Your task to perform on an android device: toggle pop-ups in chrome Image 0: 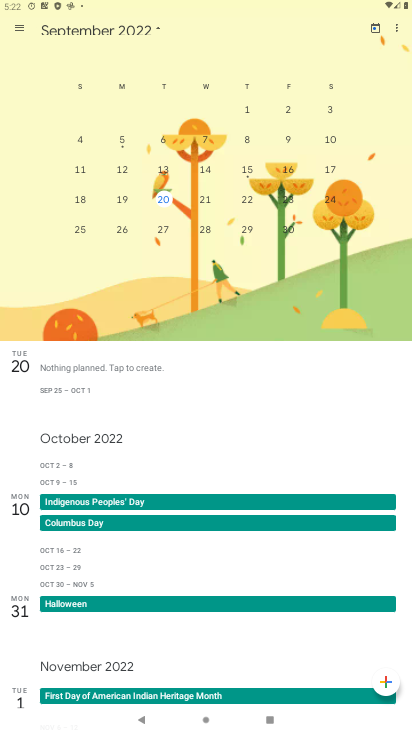
Step 0: press home button
Your task to perform on an android device: toggle pop-ups in chrome Image 1: 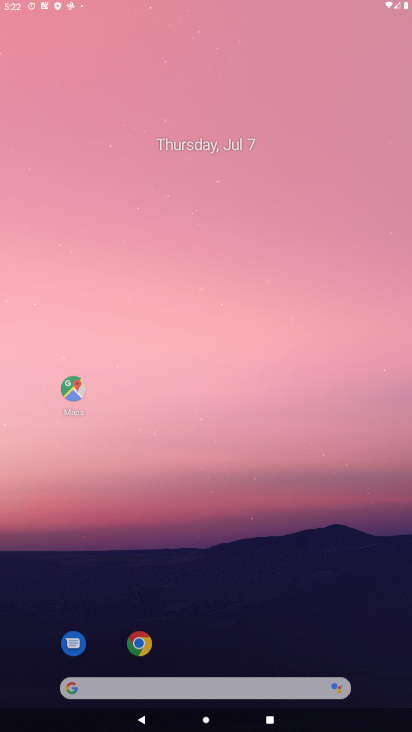
Step 1: drag from (364, 678) to (260, 119)
Your task to perform on an android device: toggle pop-ups in chrome Image 2: 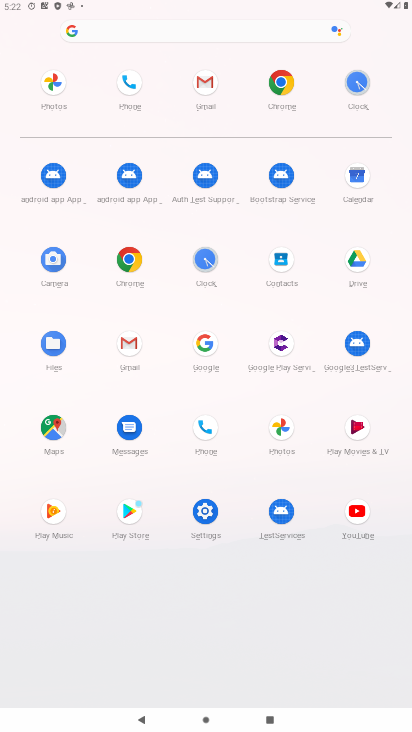
Step 2: click (274, 81)
Your task to perform on an android device: toggle pop-ups in chrome Image 3: 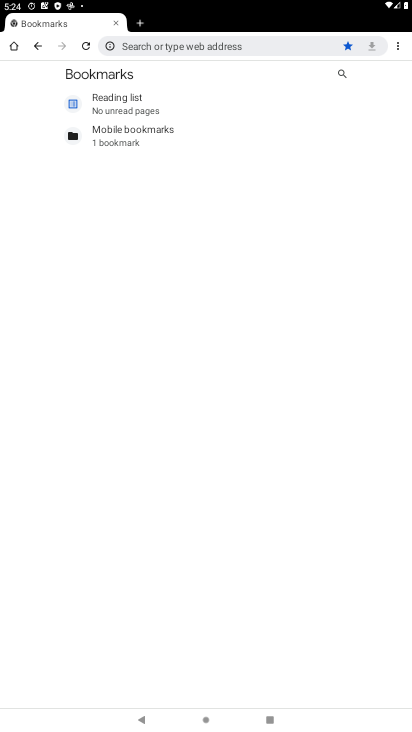
Step 3: click (393, 44)
Your task to perform on an android device: toggle pop-ups in chrome Image 4: 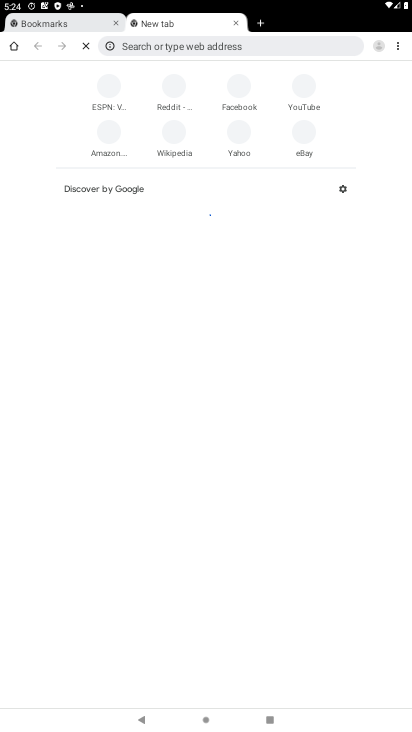
Step 4: click (398, 49)
Your task to perform on an android device: toggle pop-ups in chrome Image 5: 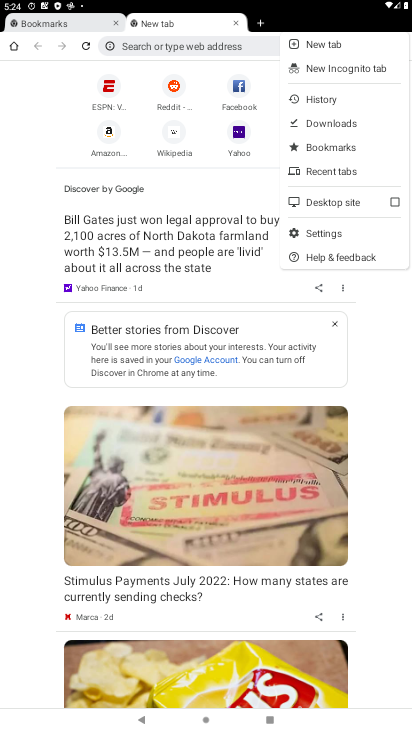
Step 5: click (328, 237)
Your task to perform on an android device: toggle pop-ups in chrome Image 6: 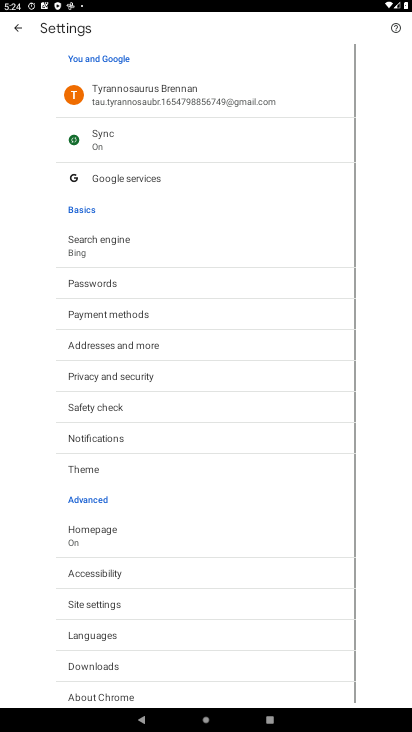
Step 6: click (122, 601)
Your task to perform on an android device: toggle pop-ups in chrome Image 7: 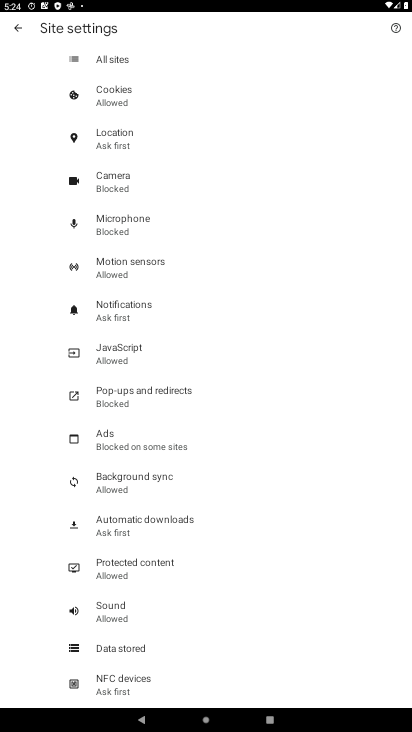
Step 7: click (126, 402)
Your task to perform on an android device: toggle pop-ups in chrome Image 8: 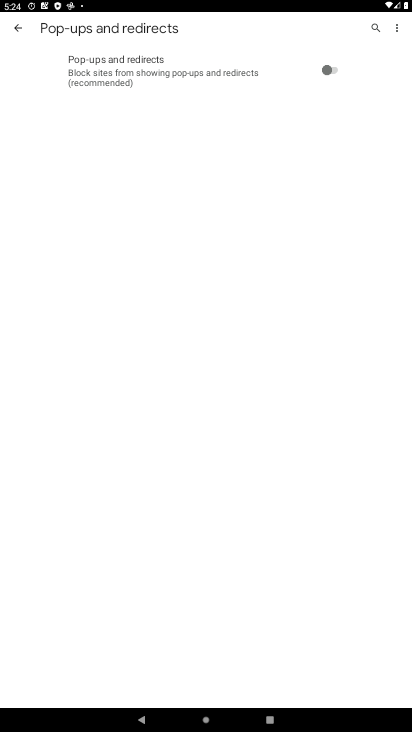
Step 8: click (358, 69)
Your task to perform on an android device: toggle pop-ups in chrome Image 9: 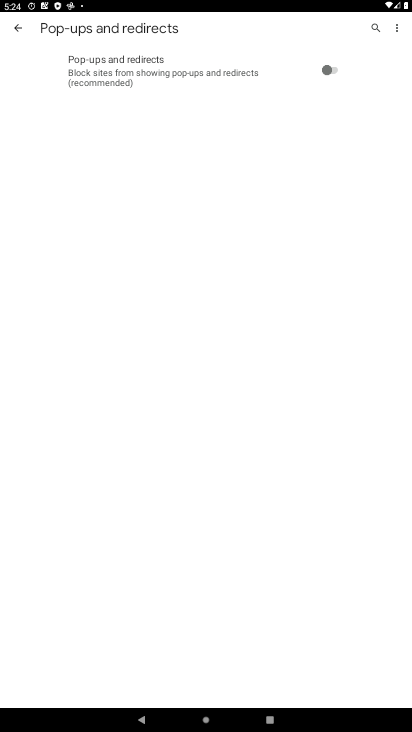
Step 9: click (316, 64)
Your task to perform on an android device: toggle pop-ups in chrome Image 10: 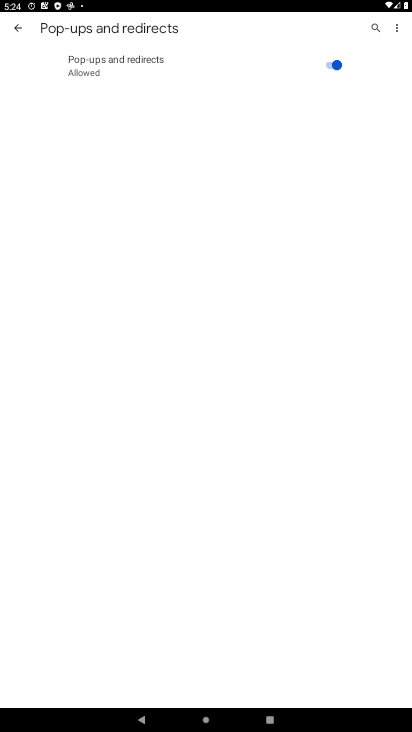
Step 10: task complete